Your task to perform on an android device: Go to CNN.com Image 0: 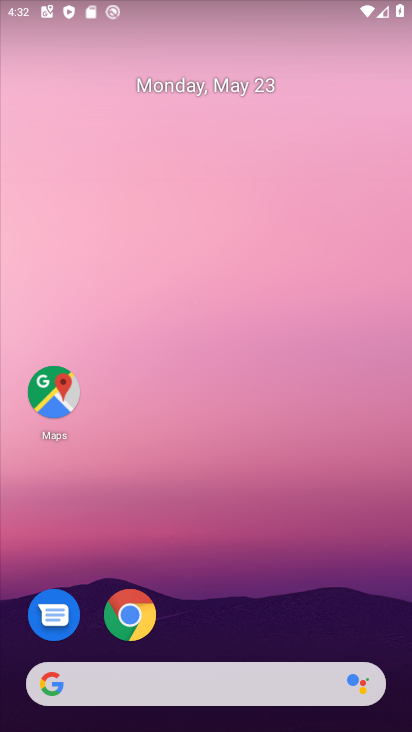
Step 0: click (134, 612)
Your task to perform on an android device: Go to CNN.com Image 1: 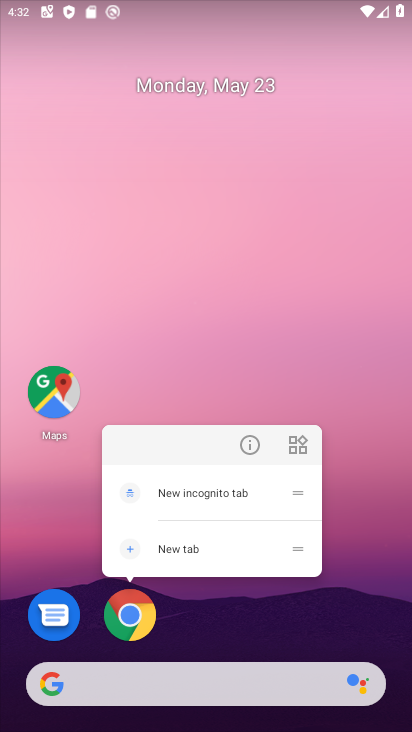
Step 1: click (134, 612)
Your task to perform on an android device: Go to CNN.com Image 2: 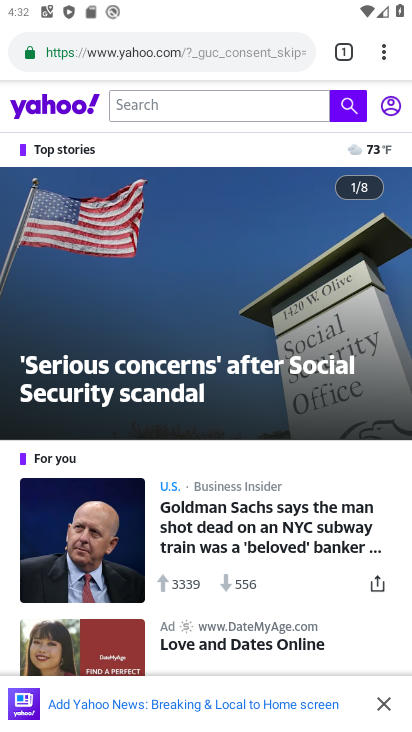
Step 2: click (339, 52)
Your task to perform on an android device: Go to CNN.com Image 3: 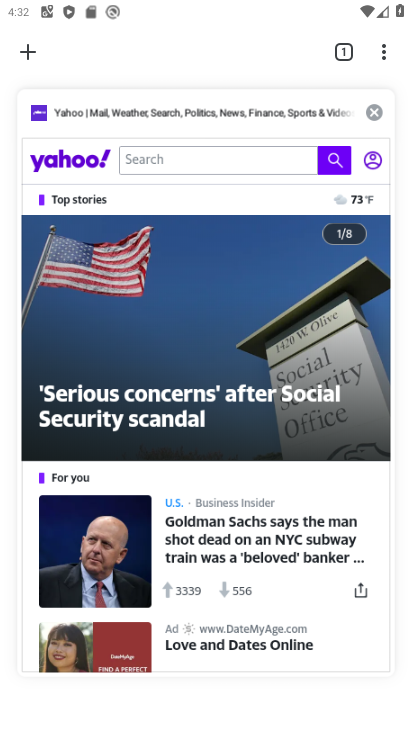
Step 3: click (26, 49)
Your task to perform on an android device: Go to CNN.com Image 4: 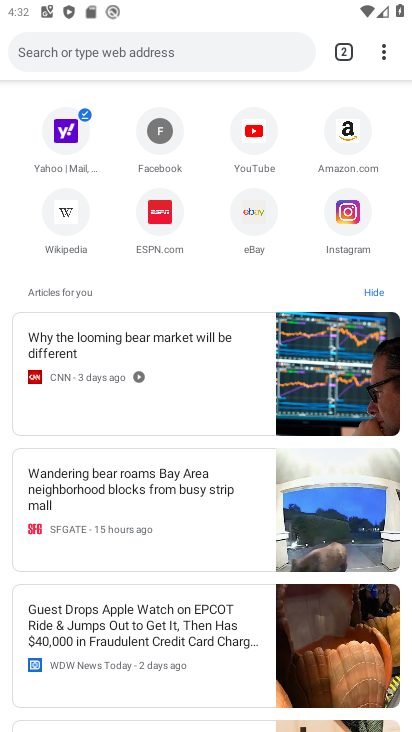
Step 4: click (131, 47)
Your task to perform on an android device: Go to CNN.com Image 5: 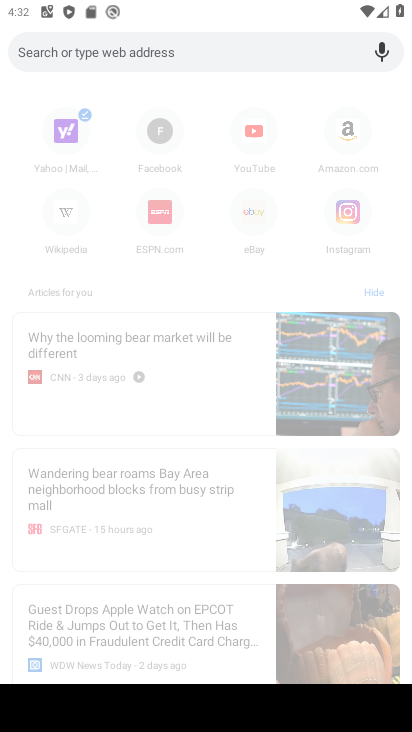
Step 5: type "cnn.com"
Your task to perform on an android device: Go to CNN.com Image 6: 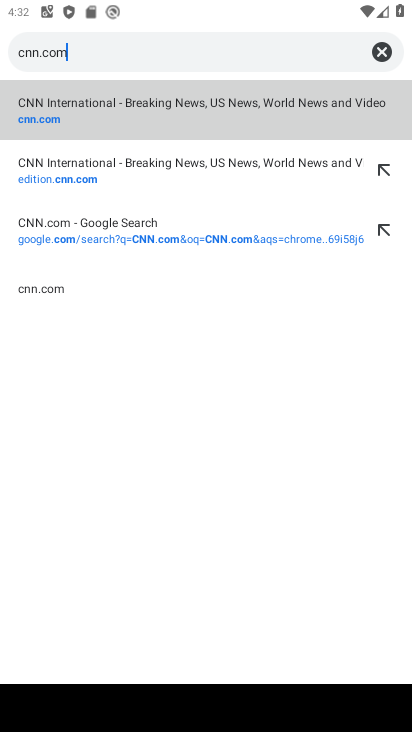
Step 6: click (67, 108)
Your task to perform on an android device: Go to CNN.com Image 7: 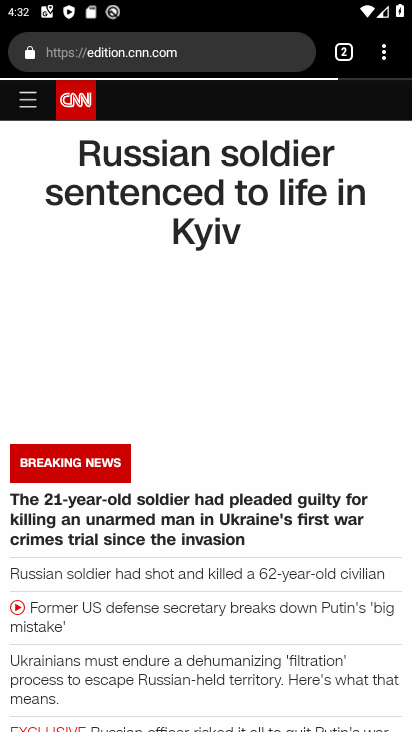
Step 7: task complete